Your task to perform on an android device: toggle sleep mode Image 0: 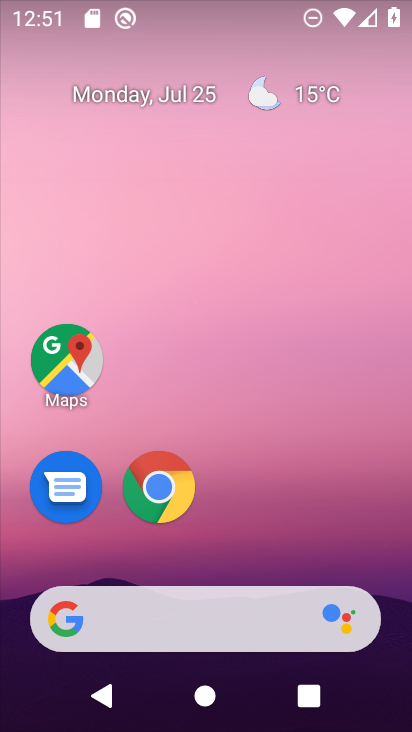
Step 0: drag from (170, 590) to (261, 23)
Your task to perform on an android device: toggle sleep mode Image 1: 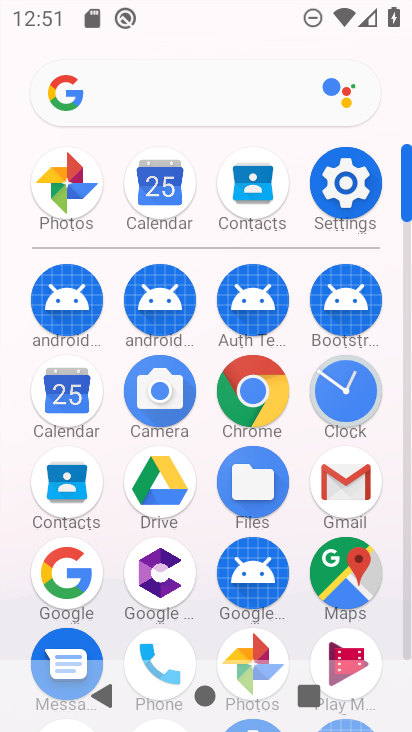
Step 1: click (333, 176)
Your task to perform on an android device: toggle sleep mode Image 2: 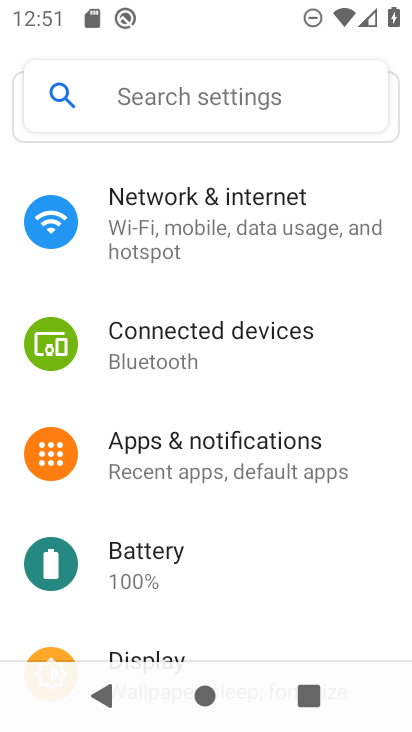
Step 2: click (99, 74)
Your task to perform on an android device: toggle sleep mode Image 3: 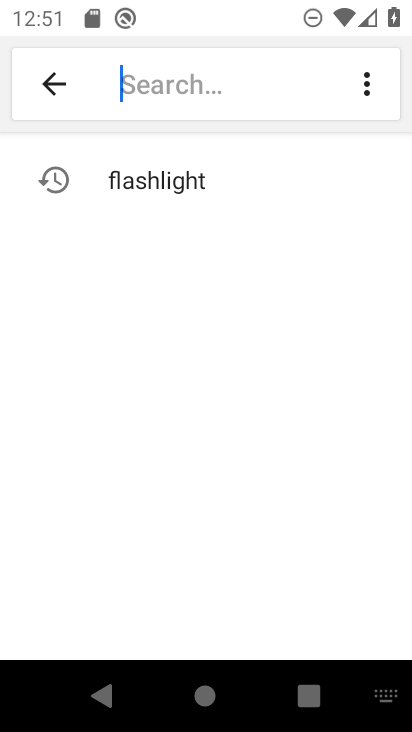
Step 3: type "sleep mode"
Your task to perform on an android device: toggle sleep mode Image 4: 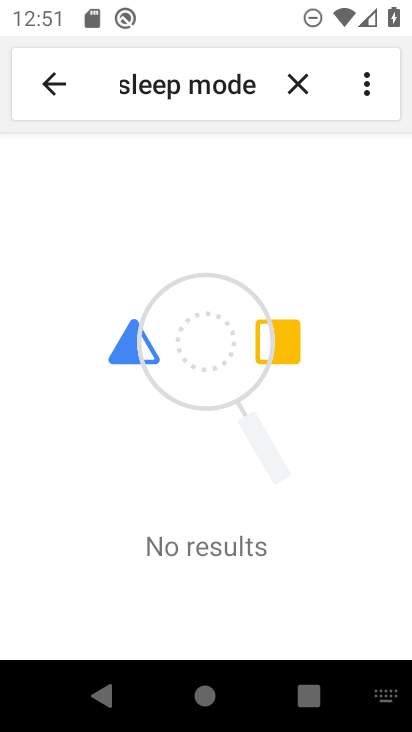
Step 4: task complete